Your task to perform on an android device: change the clock style Image 0: 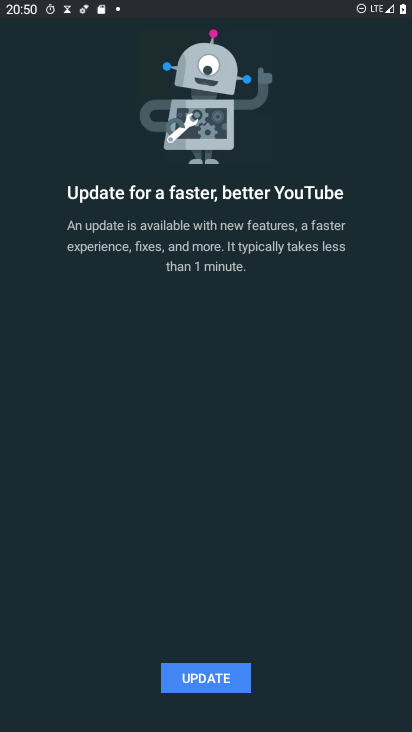
Step 0: press home button
Your task to perform on an android device: change the clock style Image 1: 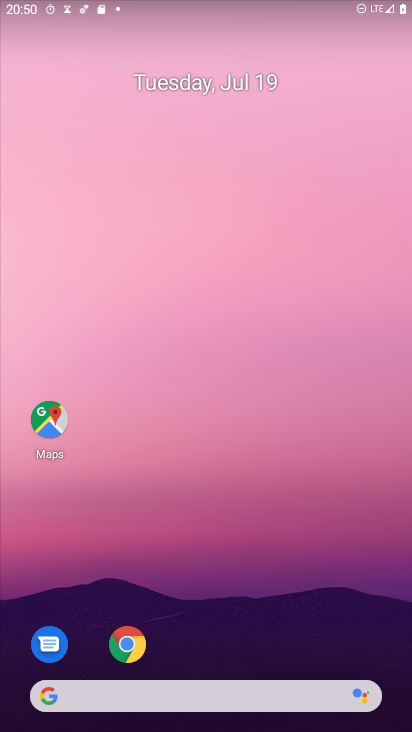
Step 1: drag from (19, 679) to (287, 4)
Your task to perform on an android device: change the clock style Image 2: 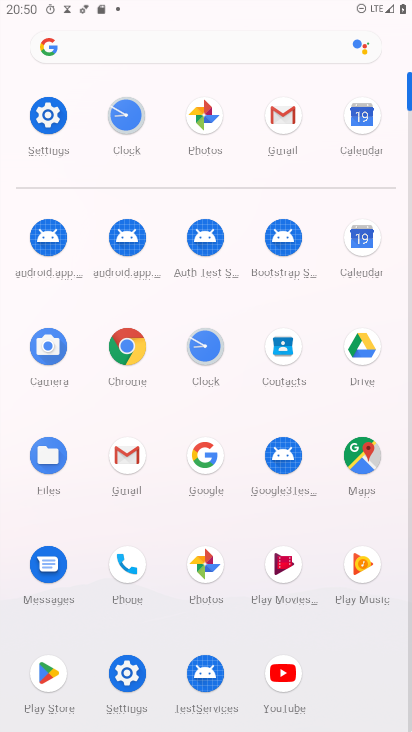
Step 2: click (217, 357)
Your task to perform on an android device: change the clock style Image 3: 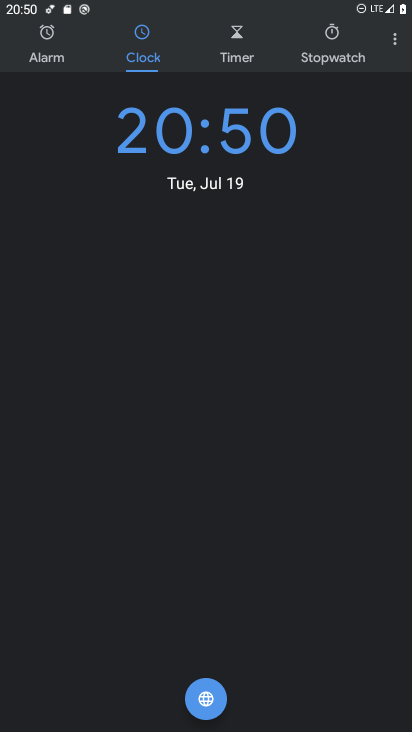
Step 3: click (393, 42)
Your task to perform on an android device: change the clock style Image 4: 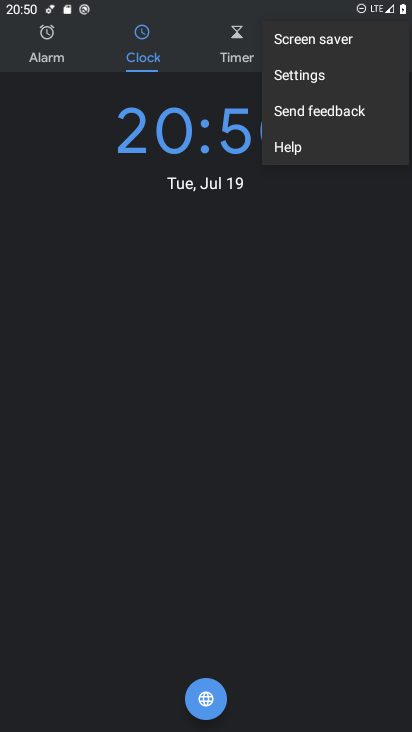
Step 4: click (329, 74)
Your task to perform on an android device: change the clock style Image 5: 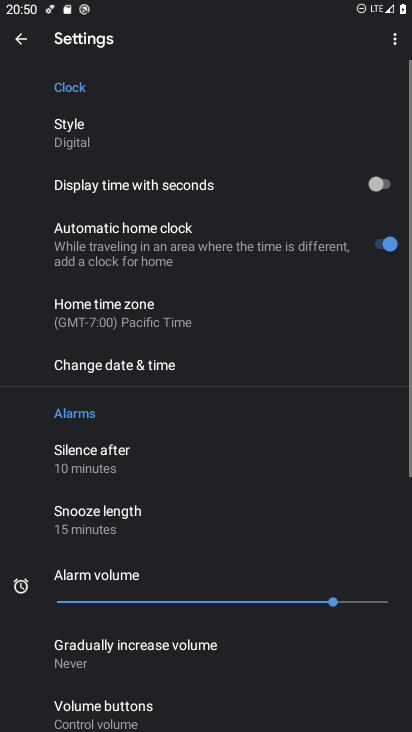
Step 5: click (82, 130)
Your task to perform on an android device: change the clock style Image 6: 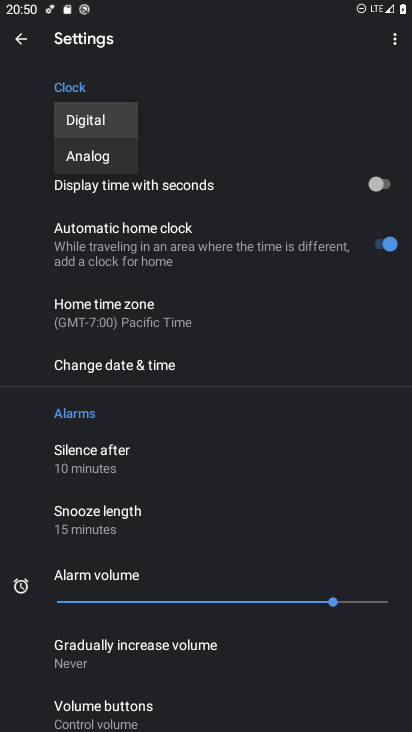
Step 6: click (93, 131)
Your task to perform on an android device: change the clock style Image 7: 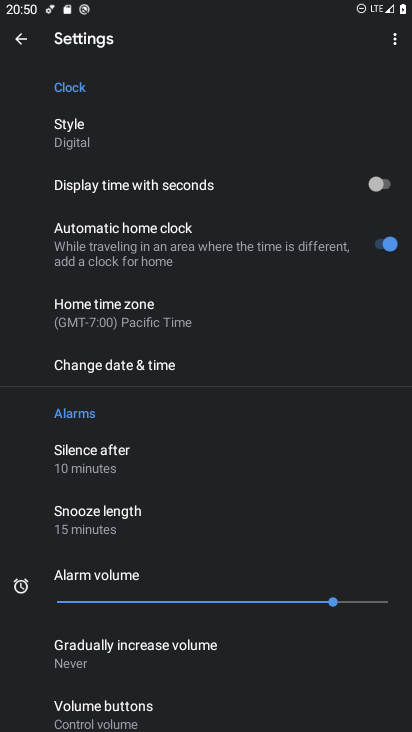
Step 7: task complete